Your task to perform on an android device: Open settings on Google Maps Image 0: 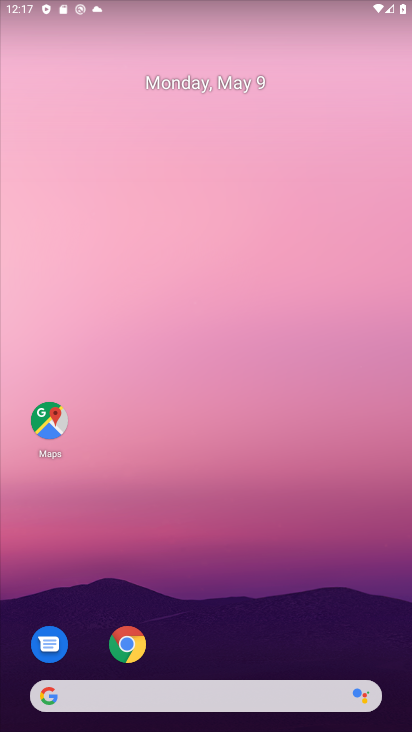
Step 0: drag from (320, 704) to (113, 32)
Your task to perform on an android device: Open settings on Google Maps Image 1: 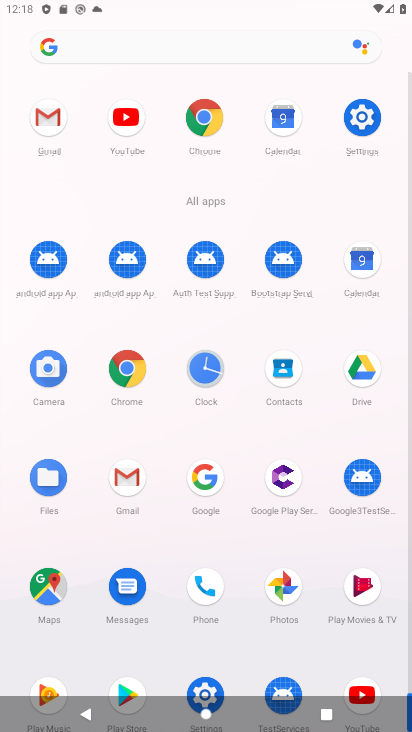
Step 1: click (47, 590)
Your task to perform on an android device: Open settings on Google Maps Image 2: 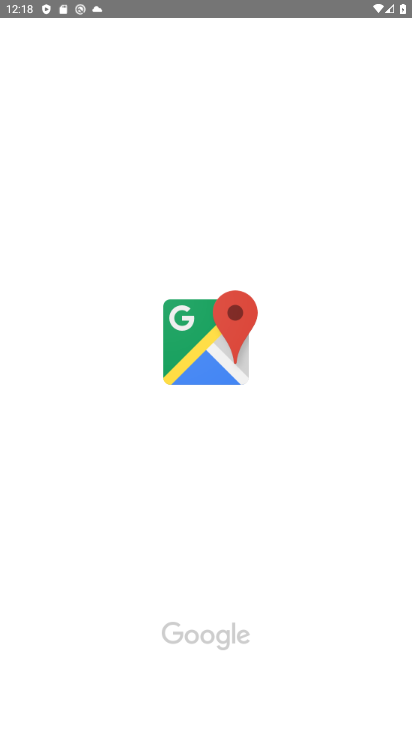
Step 2: click (210, 330)
Your task to perform on an android device: Open settings on Google Maps Image 3: 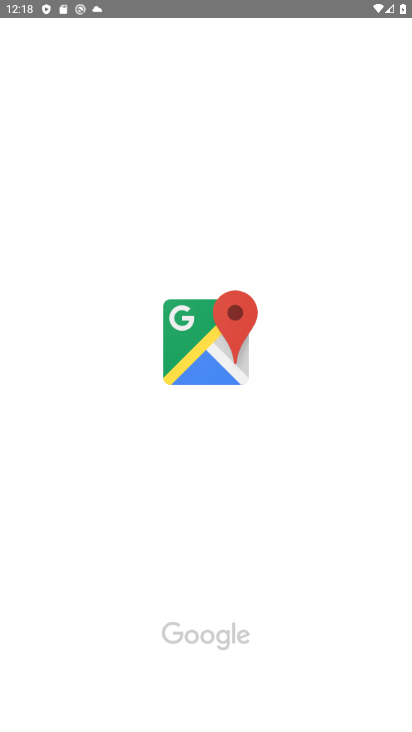
Step 3: click (210, 330)
Your task to perform on an android device: Open settings on Google Maps Image 4: 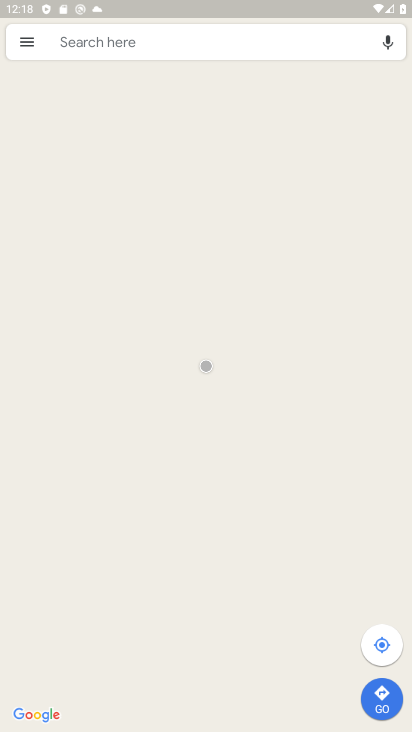
Step 4: click (21, 42)
Your task to perform on an android device: Open settings on Google Maps Image 5: 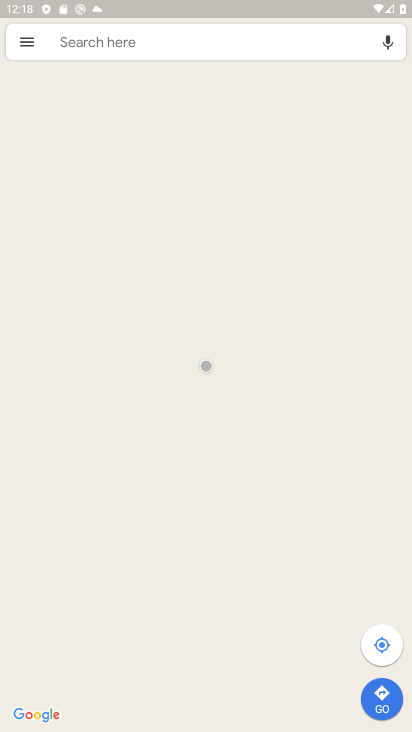
Step 5: click (21, 42)
Your task to perform on an android device: Open settings on Google Maps Image 6: 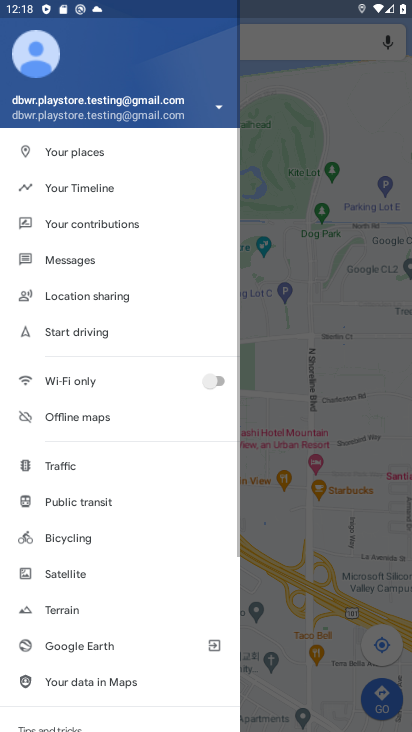
Step 6: click (83, 186)
Your task to perform on an android device: Open settings on Google Maps Image 7: 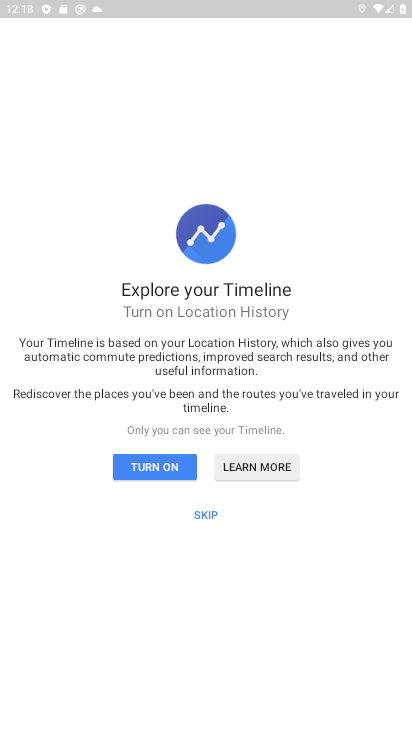
Step 7: click (167, 466)
Your task to perform on an android device: Open settings on Google Maps Image 8: 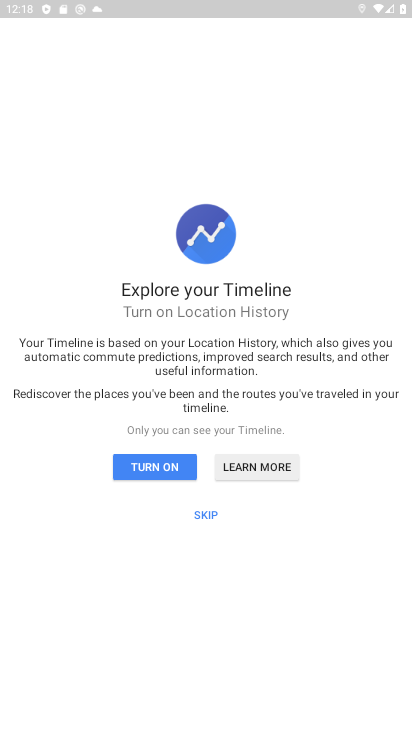
Step 8: click (167, 466)
Your task to perform on an android device: Open settings on Google Maps Image 9: 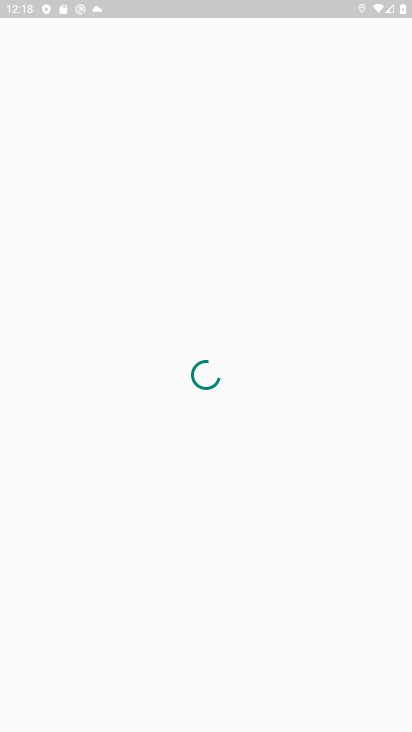
Step 9: click (392, 42)
Your task to perform on an android device: Open settings on Google Maps Image 10: 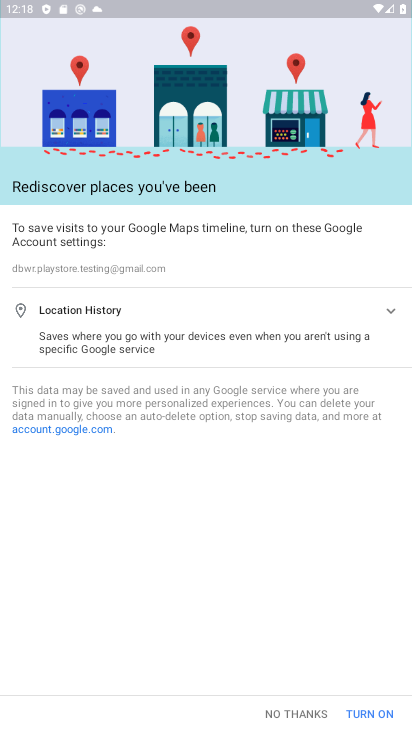
Step 10: click (373, 710)
Your task to perform on an android device: Open settings on Google Maps Image 11: 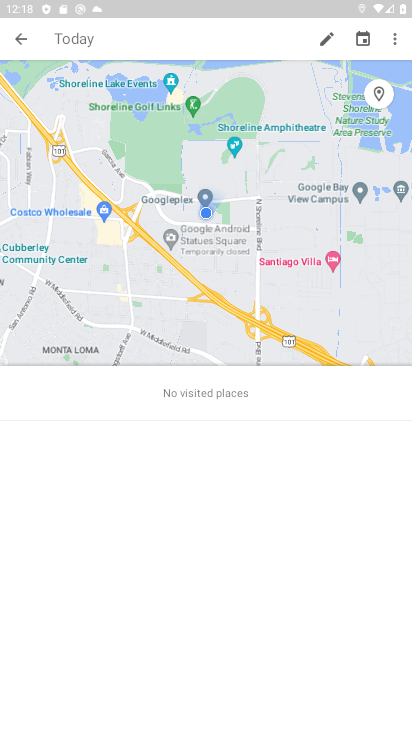
Step 11: task complete